Your task to perform on an android device: What's the weather going to be tomorrow? Image 0: 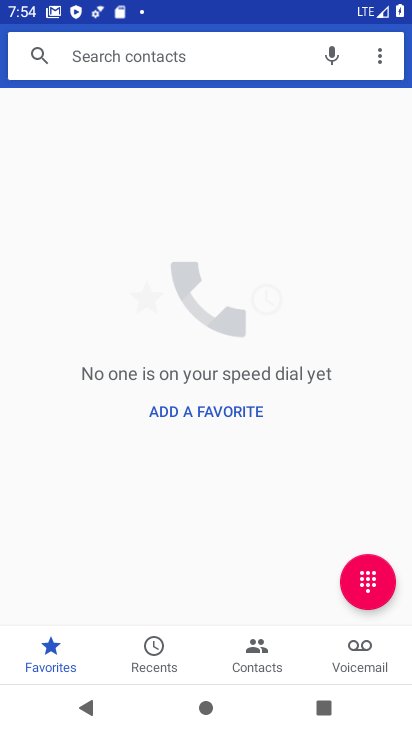
Step 0: press home button
Your task to perform on an android device: What's the weather going to be tomorrow? Image 1: 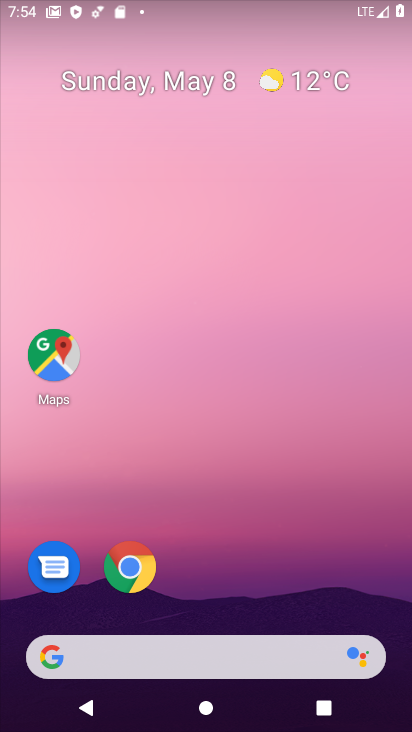
Step 1: click (311, 87)
Your task to perform on an android device: What's the weather going to be tomorrow? Image 2: 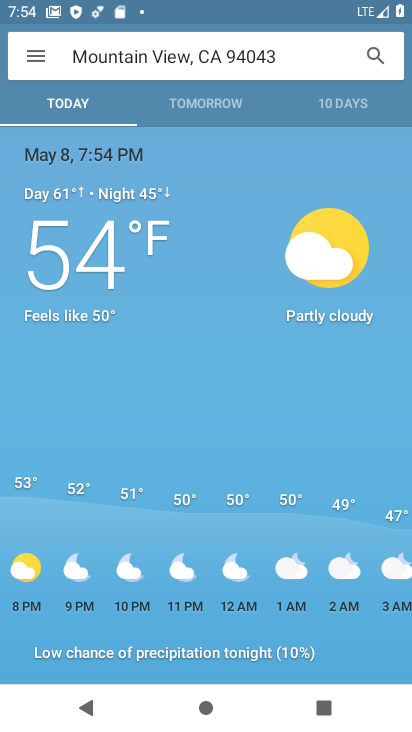
Step 2: click (213, 109)
Your task to perform on an android device: What's the weather going to be tomorrow? Image 3: 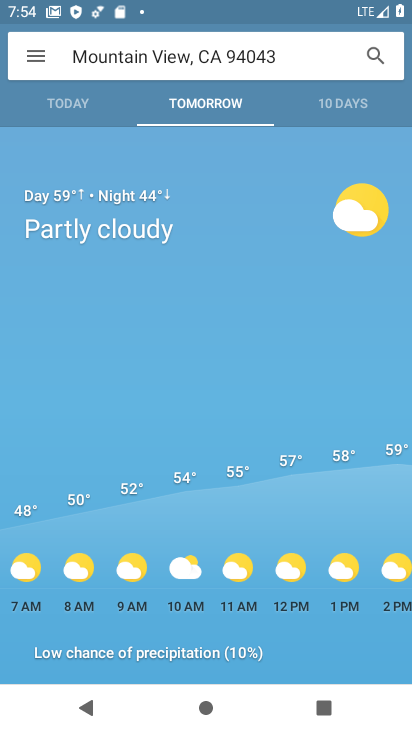
Step 3: task complete